Your task to perform on an android device: Add "corsair k70" to the cart on bestbuy Image 0: 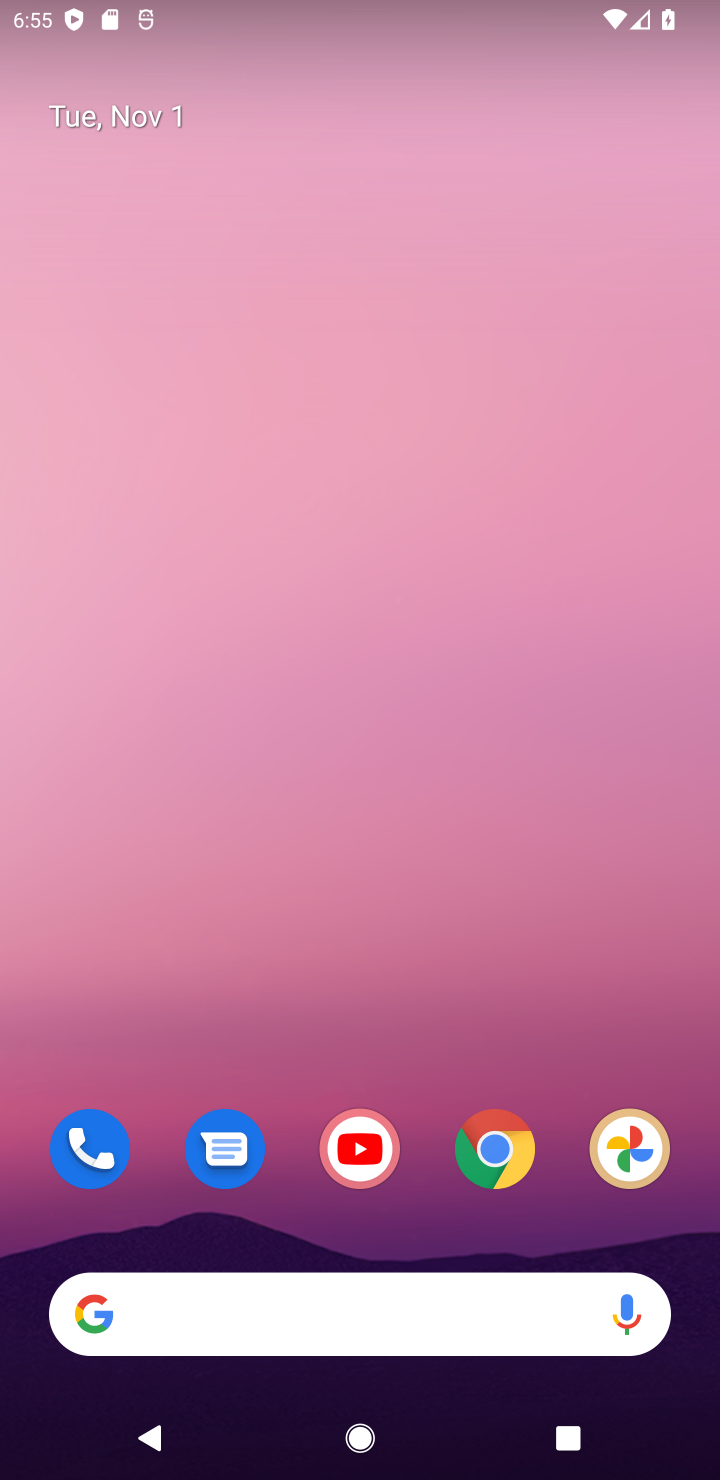
Step 0: drag from (437, 1224) to (573, 311)
Your task to perform on an android device: Add "corsair k70" to the cart on bestbuy Image 1: 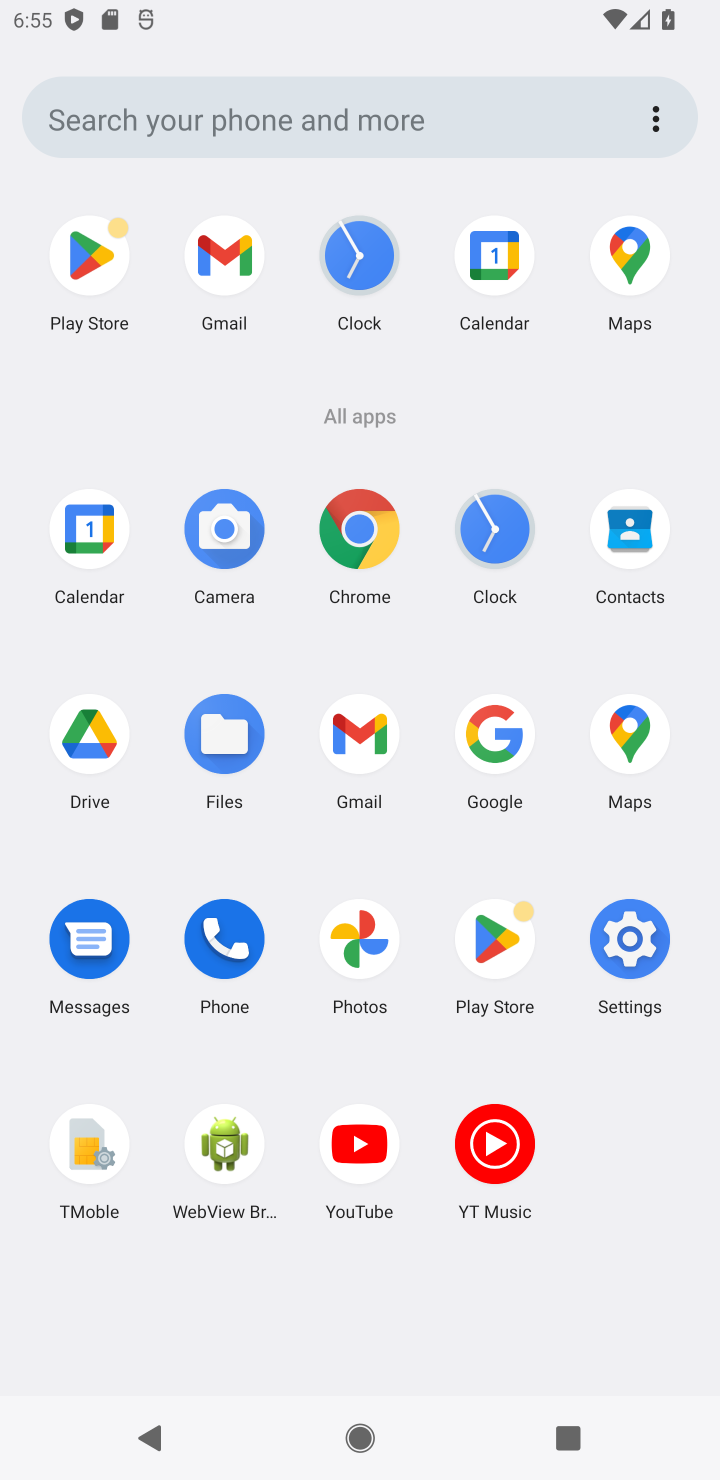
Step 1: click (365, 540)
Your task to perform on an android device: Add "corsair k70" to the cart on bestbuy Image 2: 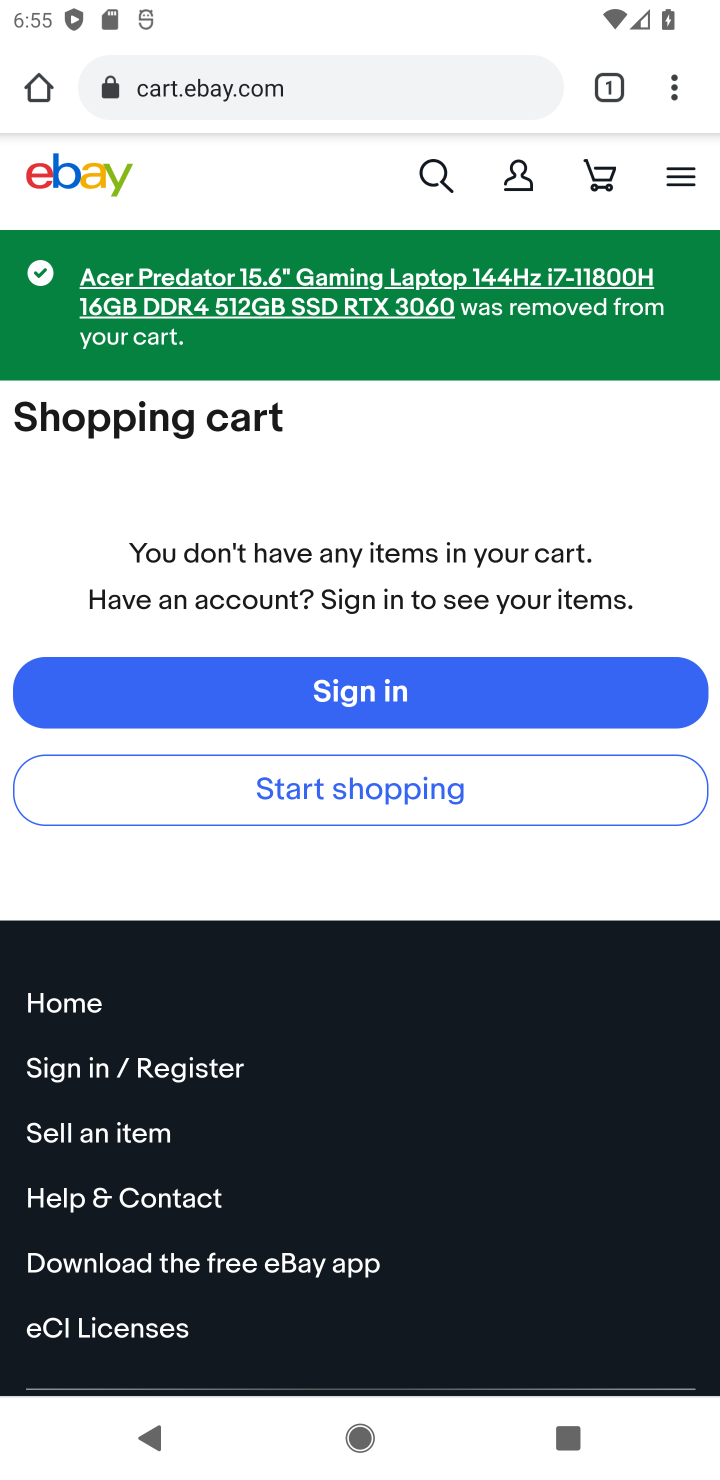
Step 2: click (394, 82)
Your task to perform on an android device: Add "corsair k70" to the cart on bestbuy Image 3: 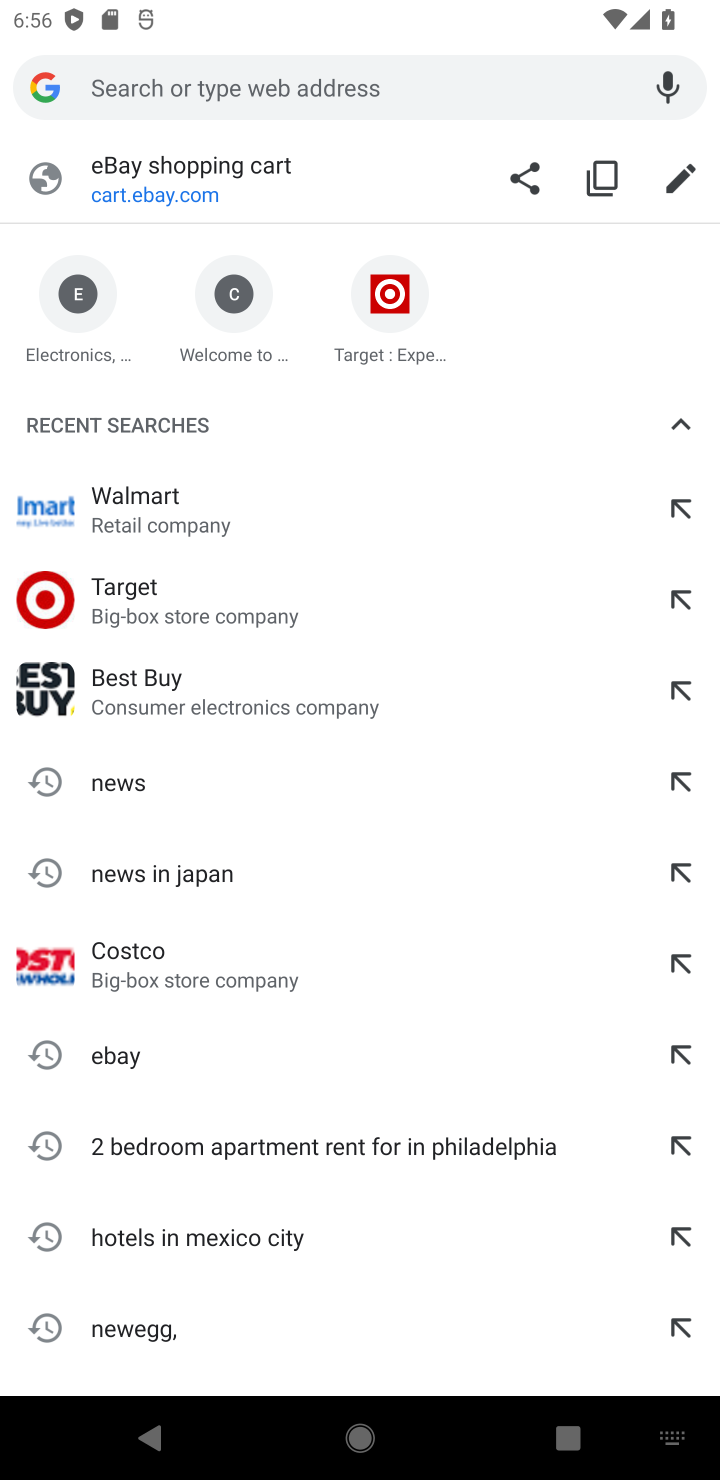
Step 3: type "bestbuy.com"
Your task to perform on an android device: Add "corsair k70" to the cart on bestbuy Image 4: 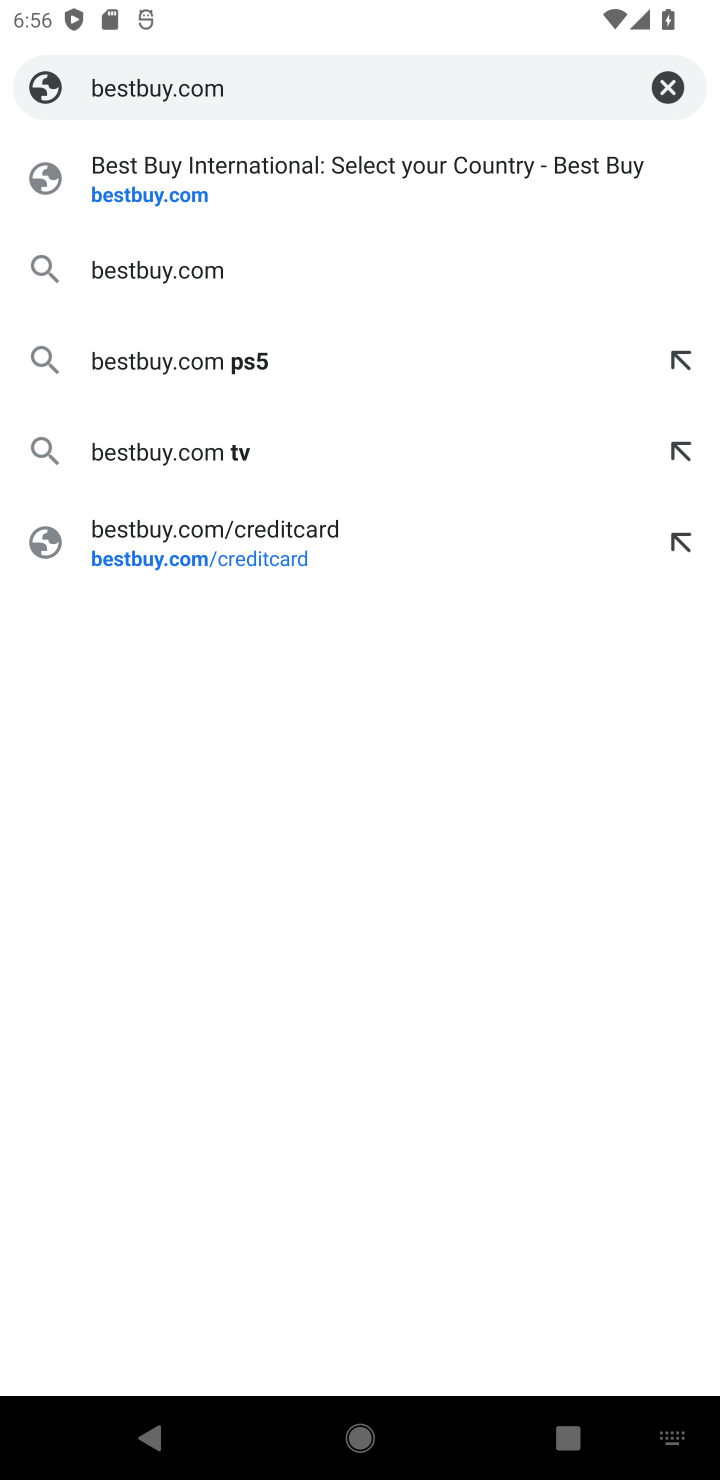
Step 4: press enter
Your task to perform on an android device: Add "corsair k70" to the cart on bestbuy Image 5: 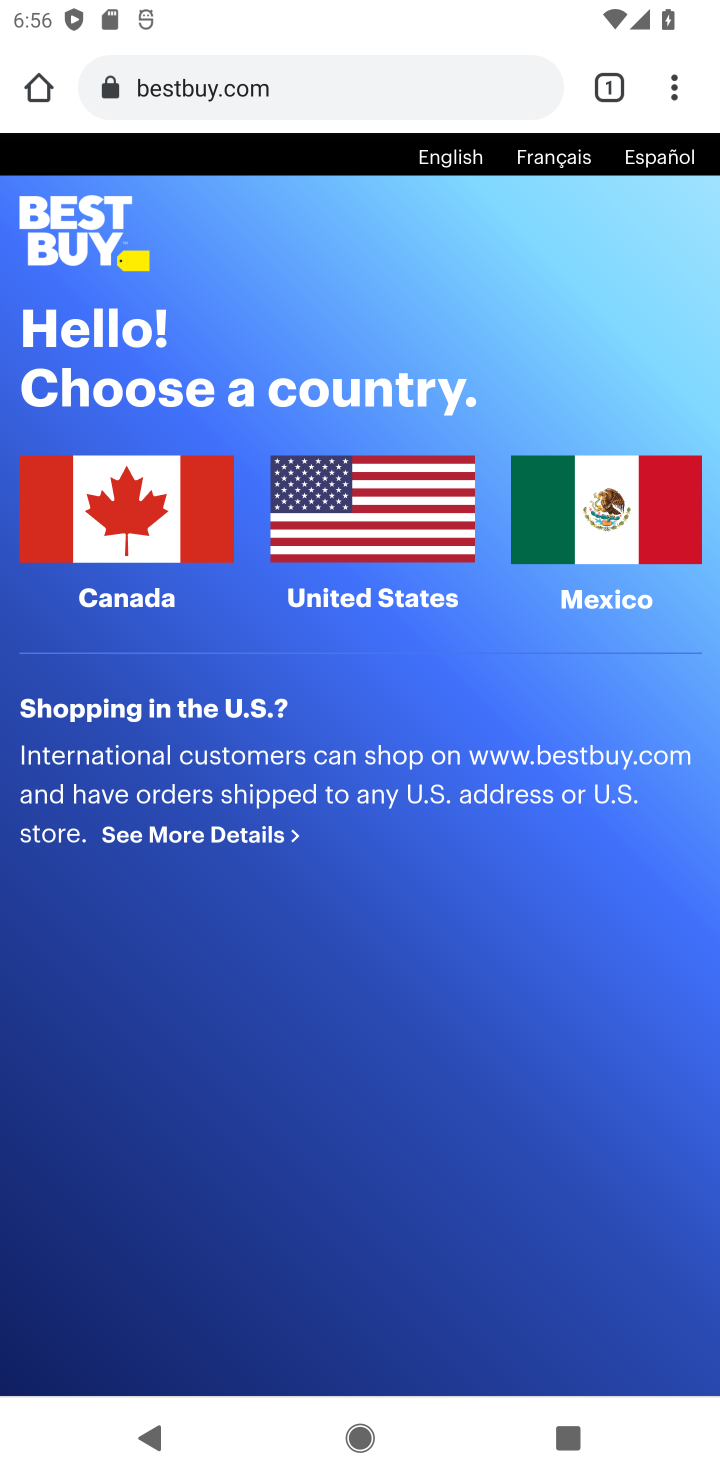
Step 5: click (105, 514)
Your task to perform on an android device: Add "corsair k70" to the cart on bestbuy Image 6: 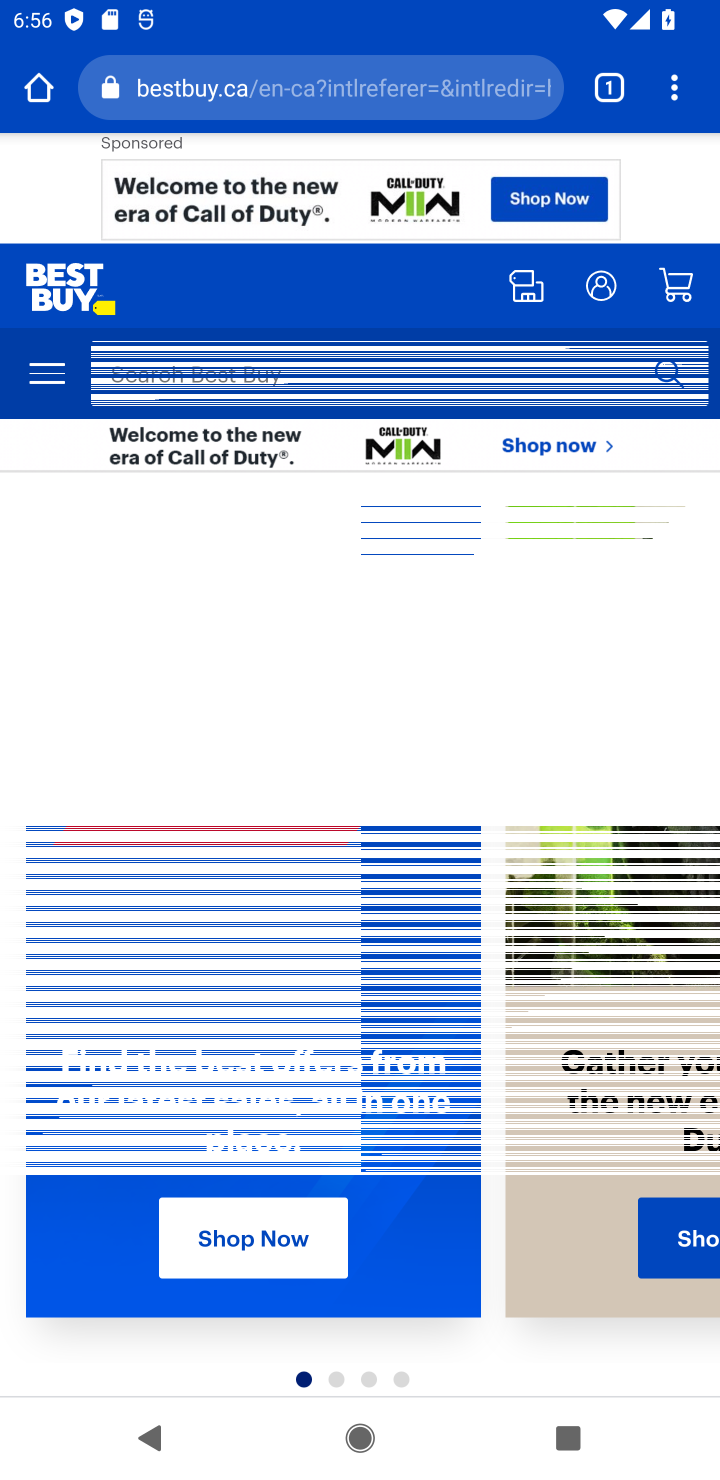
Step 6: click (197, 354)
Your task to perform on an android device: Add "corsair k70" to the cart on bestbuy Image 7: 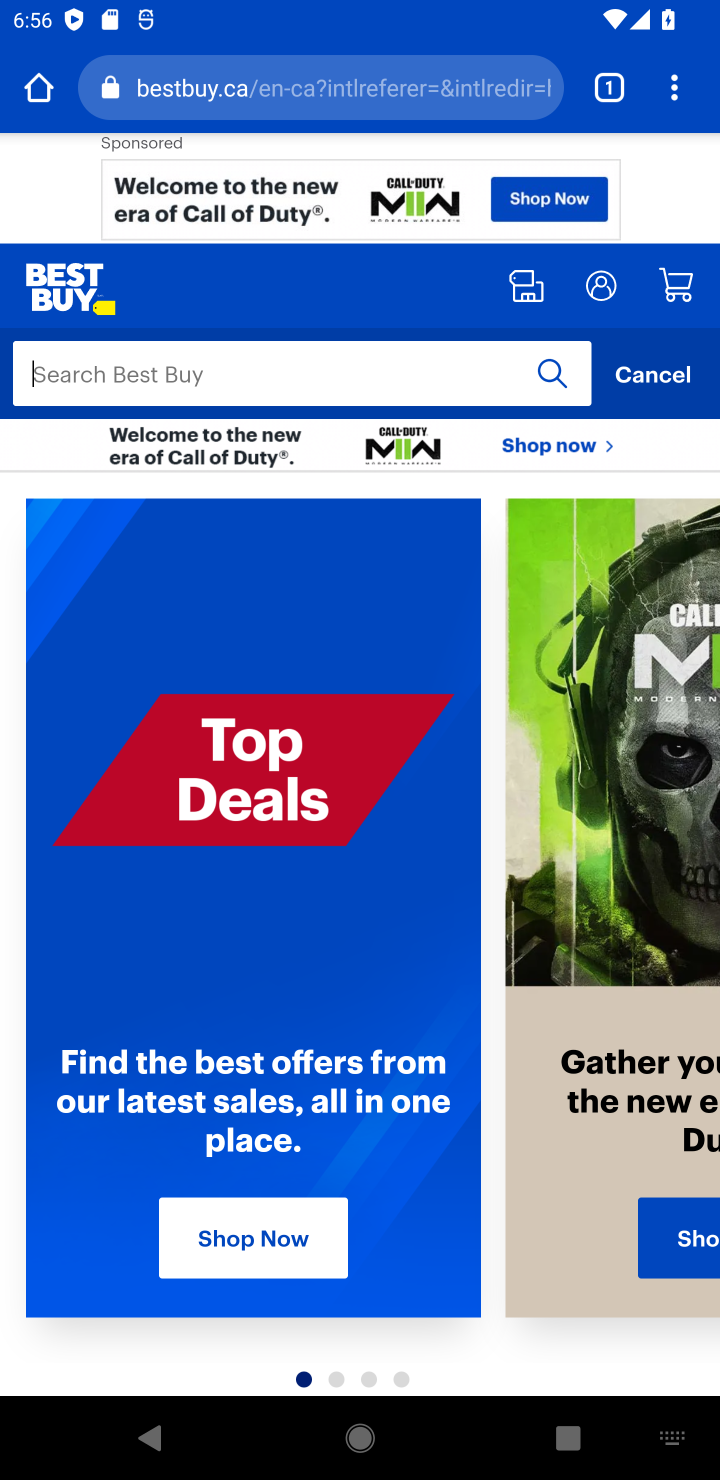
Step 7: type "corsair k70"
Your task to perform on an android device: Add "corsair k70" to the cart on bestbuy Image 8: 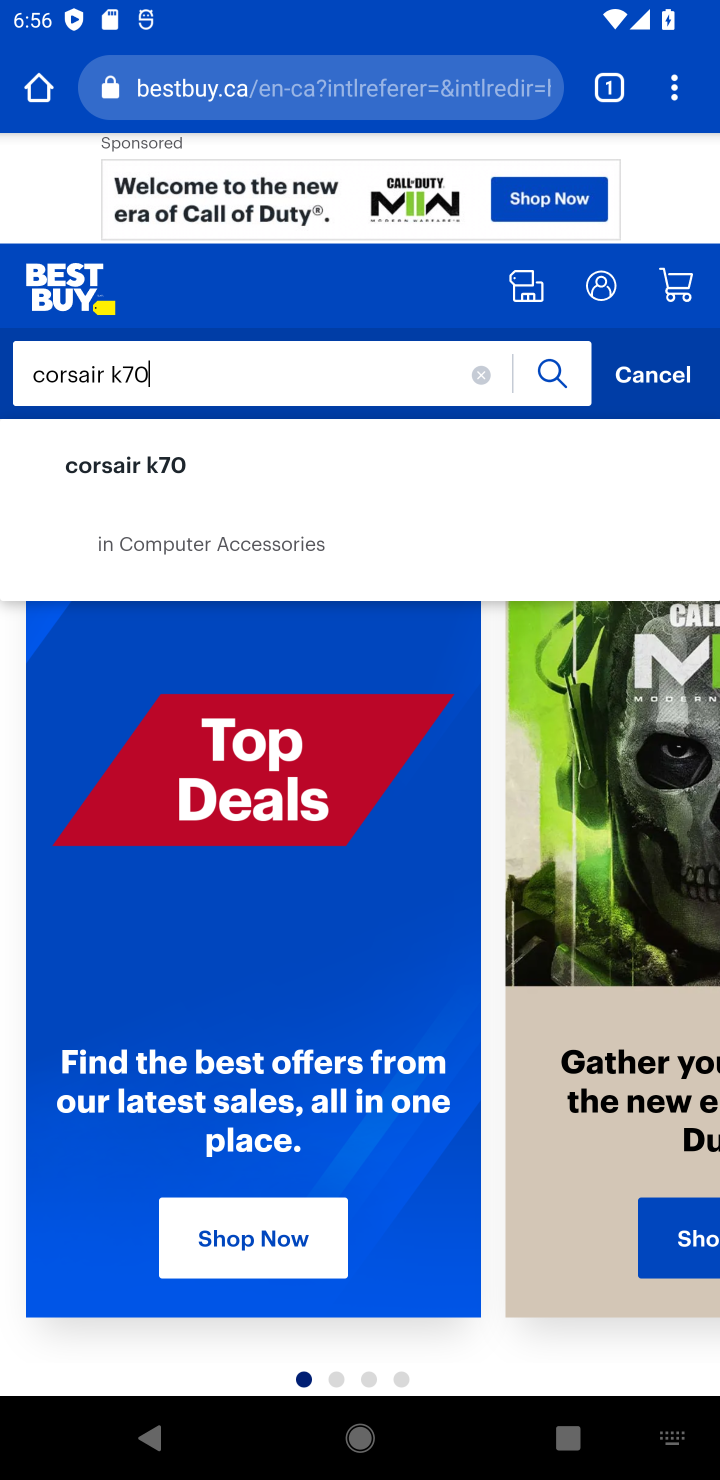
Step 8: press enter
Your task to perform on an android device: Add "corsair k70" to the cart on bestbuy Image 9: 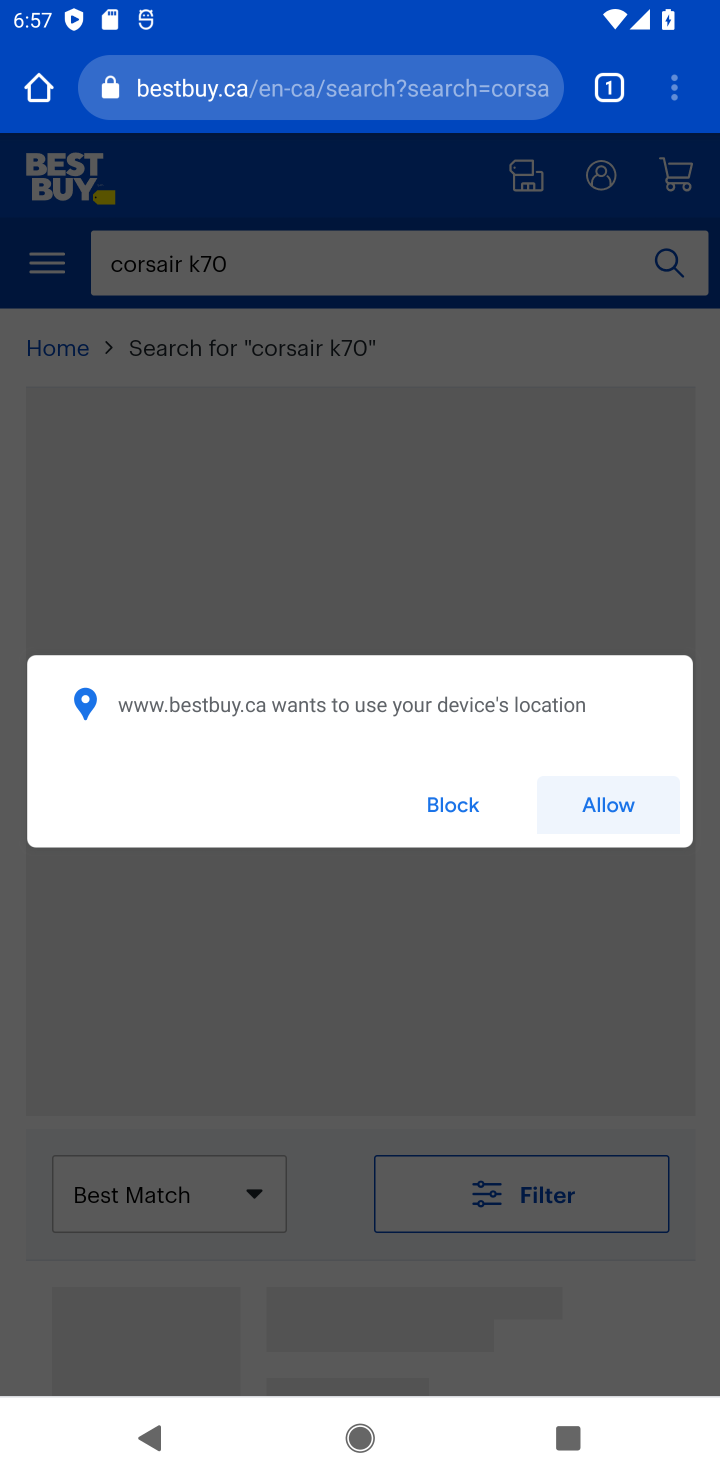
Step 9: click (441, 798)
Your task to perform on an android device: Add "corsair k70" to the cart on bestbuy Image 10: 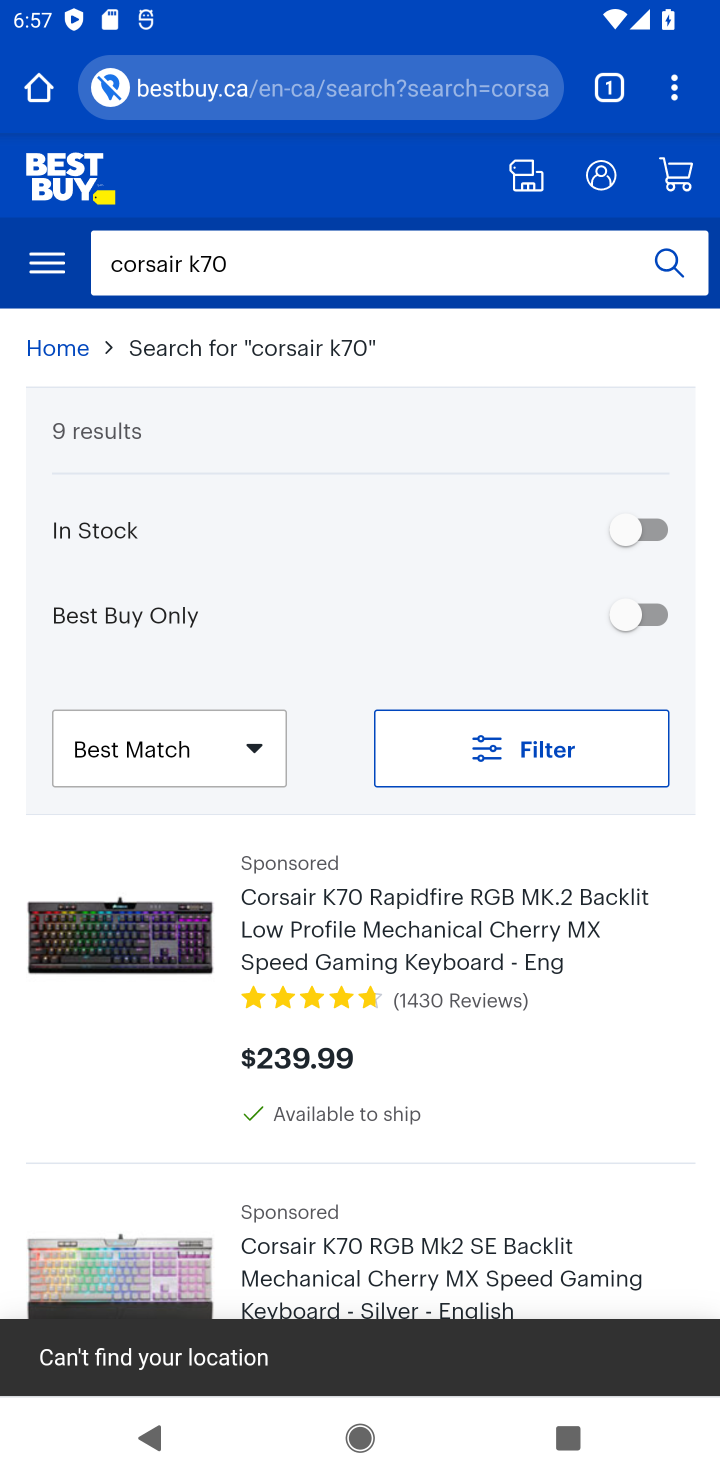
Step 10: drag from (400, 1142) to (474, 552)
Your task to perform on an android device: Add "corsair k70" to the cart on bestbuy Image 11: 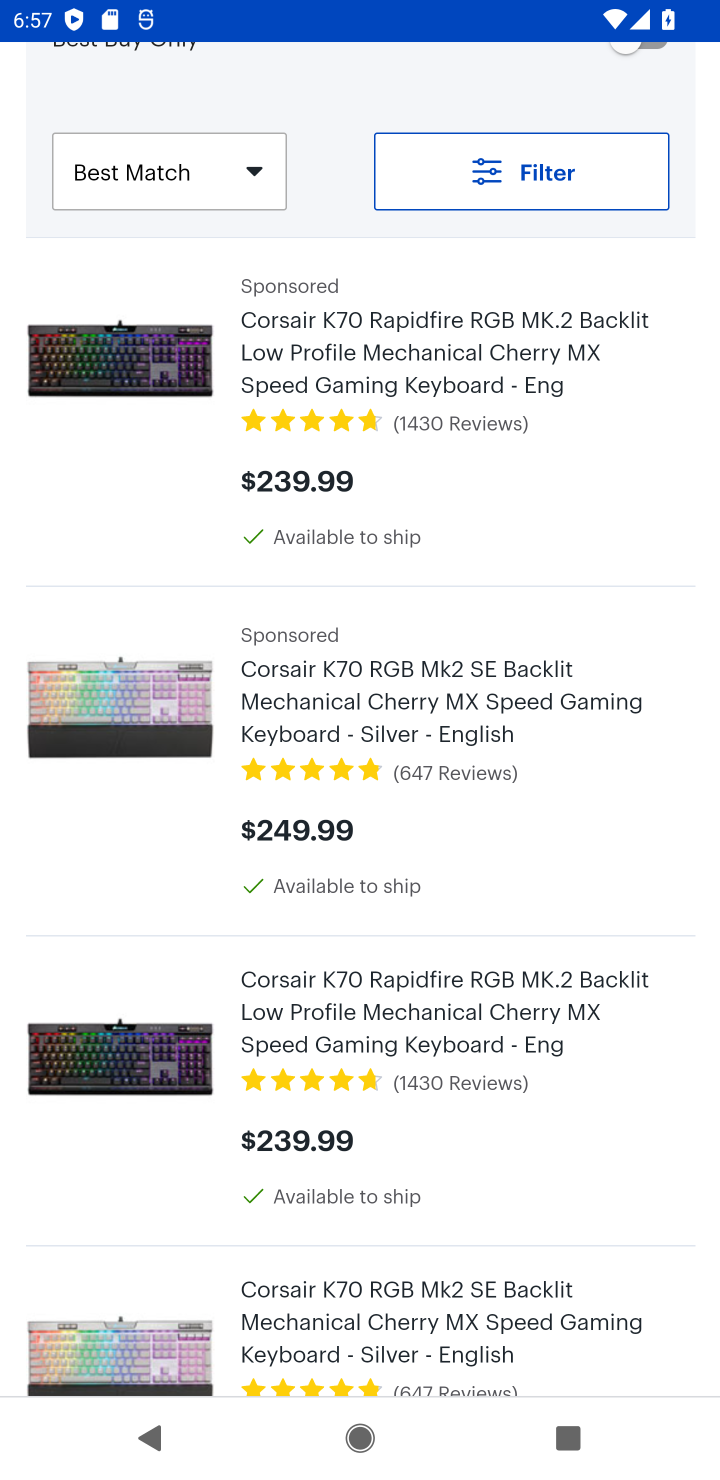
Step 11: click (411, 1038)
Your task to perform on an android device: Add "corsair k70" to the cart on bestbuy Image 12: 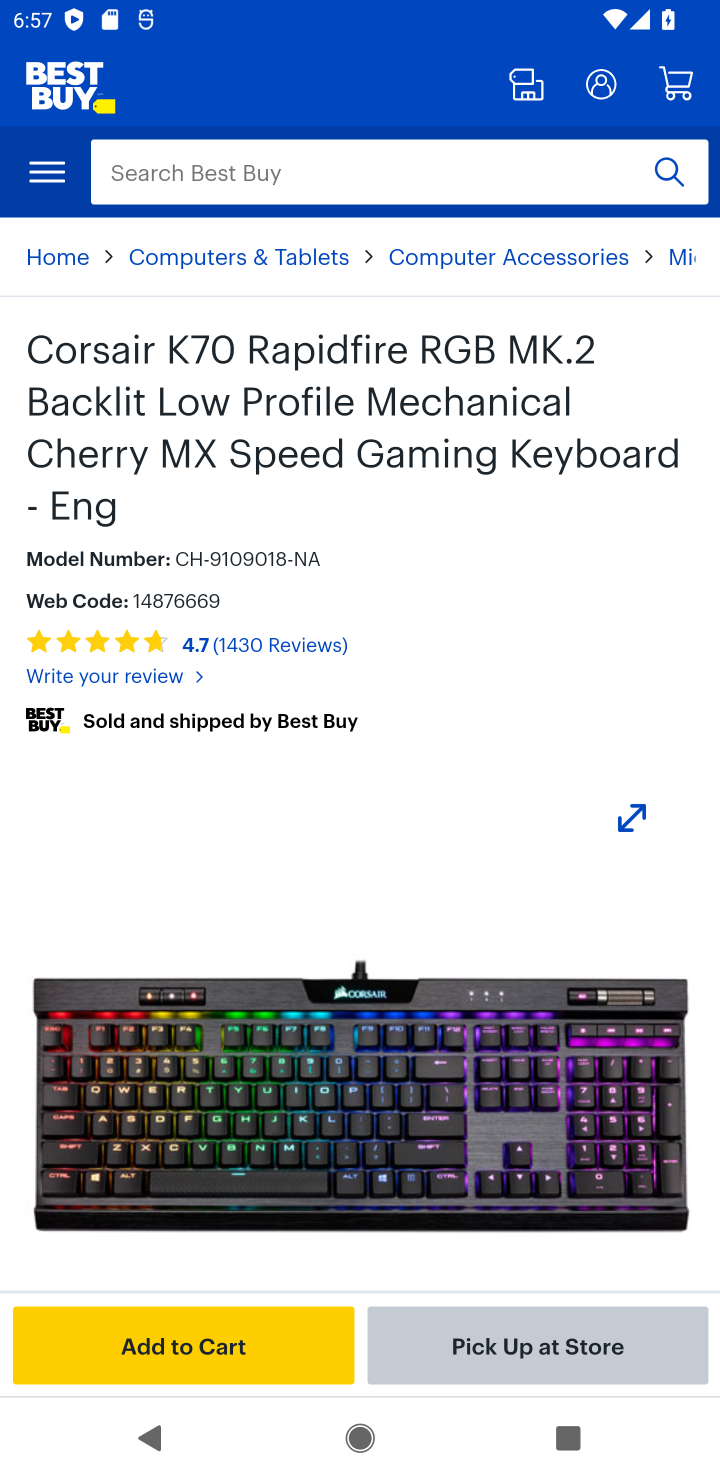
Step 12: drag from (397, 1127) to (410, 845)
Your task to perform on an android device: Add "corsair k70" to the cart on bestbuy Image 13: 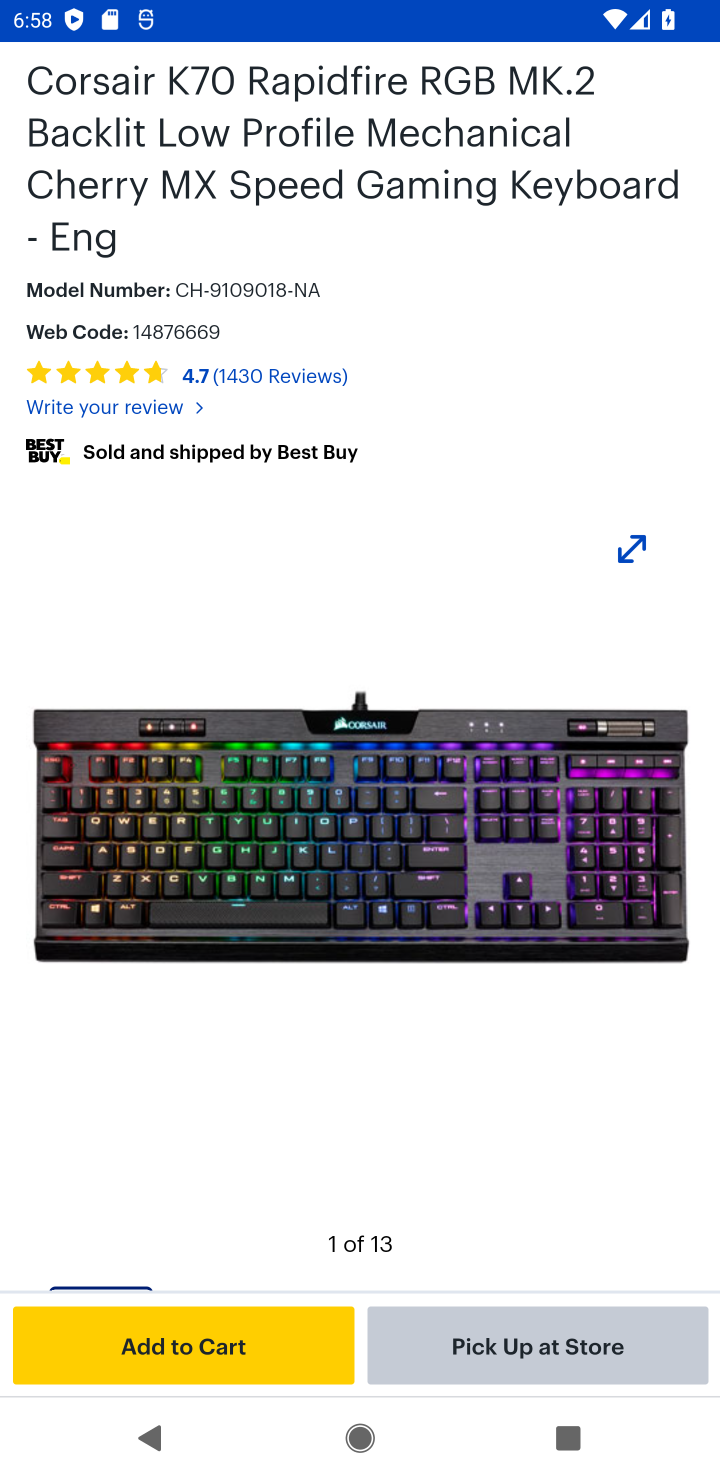
Step 13: click (179, 1341)
Your task to perform on an android device: Add "corsair k70" to the cart on bestbuy Image 14: 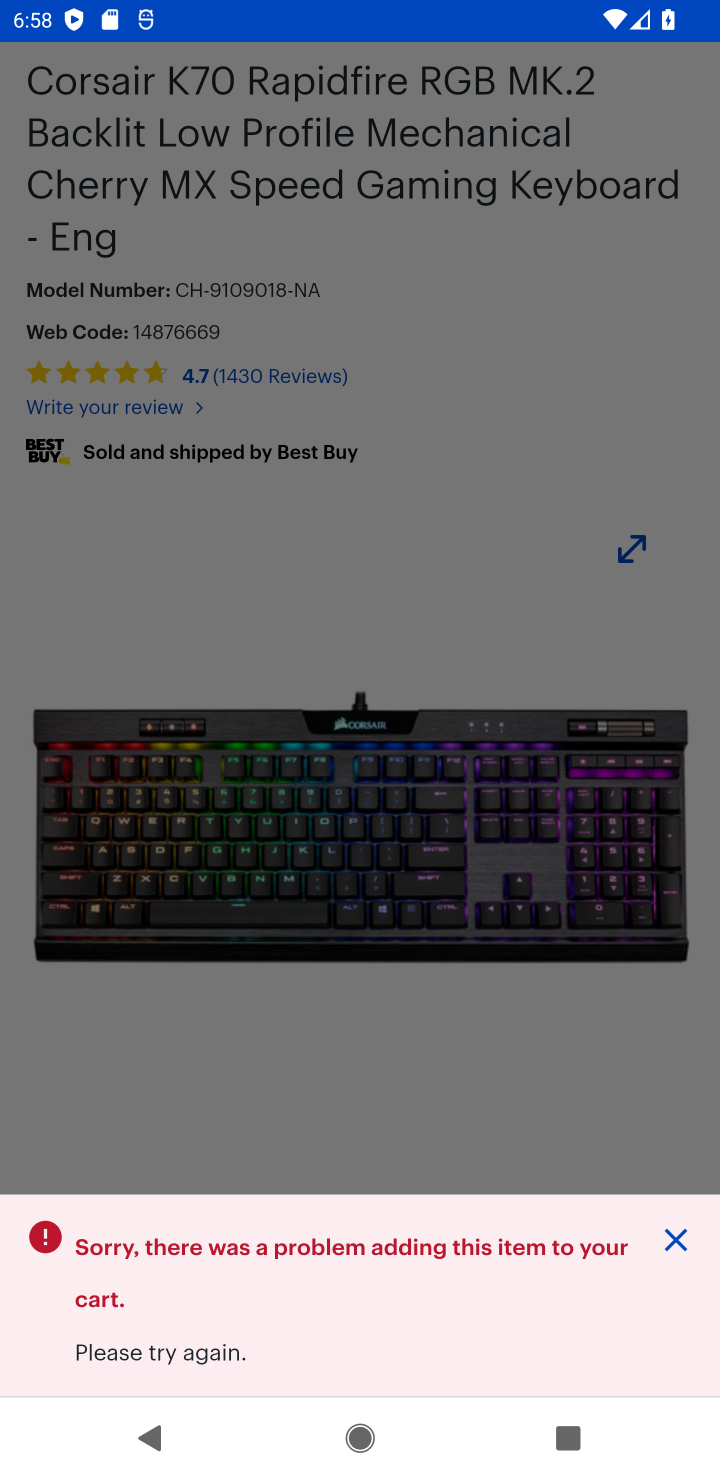
Step 14: task complete